Your task to perform on an android device: see creations saved in the google photos Image 0: 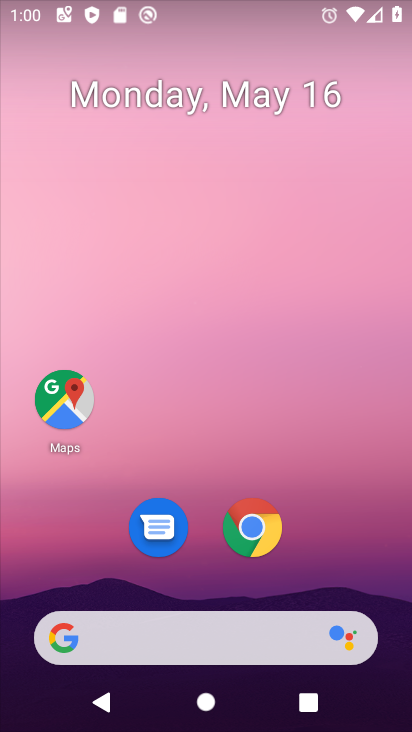
Step 0: drag from (334, 496) to (328, 235)
Your task to perform on an android device: see creations saved in the google photos Image 1: 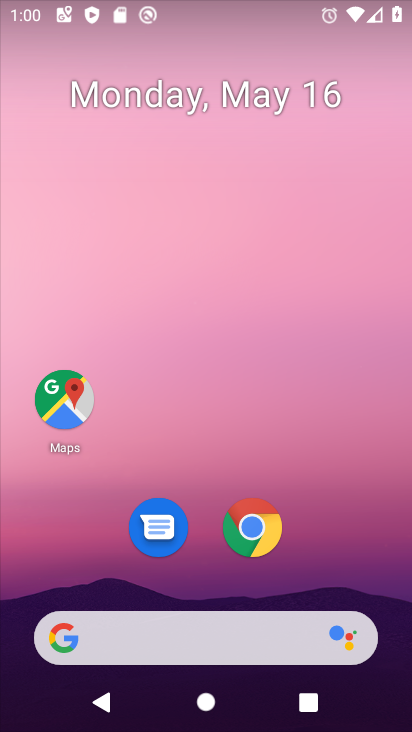
Step 1: drag from (317, 493) to (327, 67)
Your task to perform on an android device: see creations saved in the google photos Image 2: 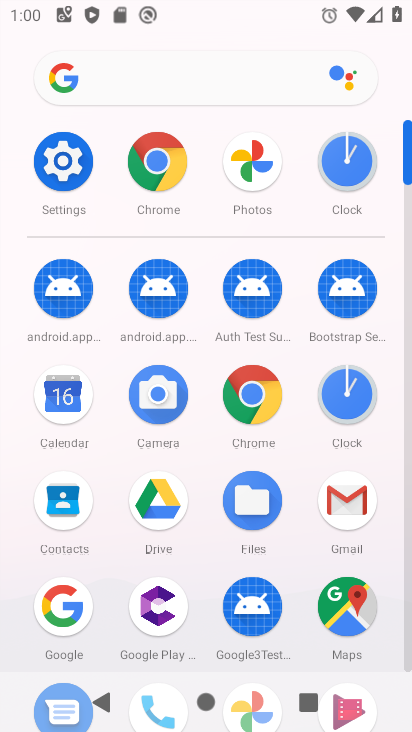
Step 2: click (405, 657)
Your task to perform on an android device: see creations saved in the google photos Image 3: 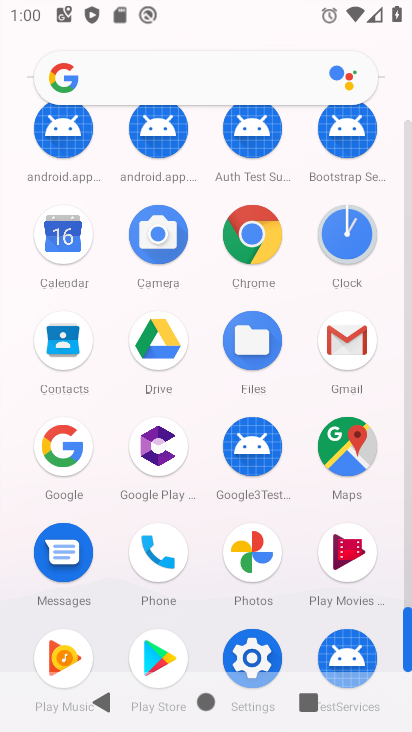
Step 3: click (248, 577)
Your task to perform on an android device: see creations saved in the google photos Image 4: 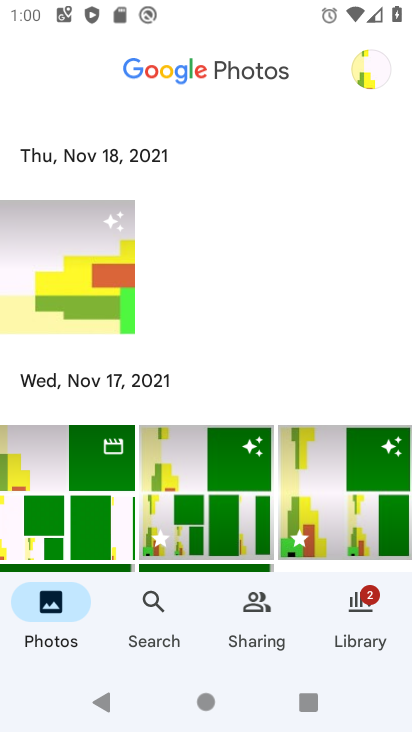
Step 4: click (351, 648)
Your task to perform on an android device: see creations saved in the google photos Image 5: 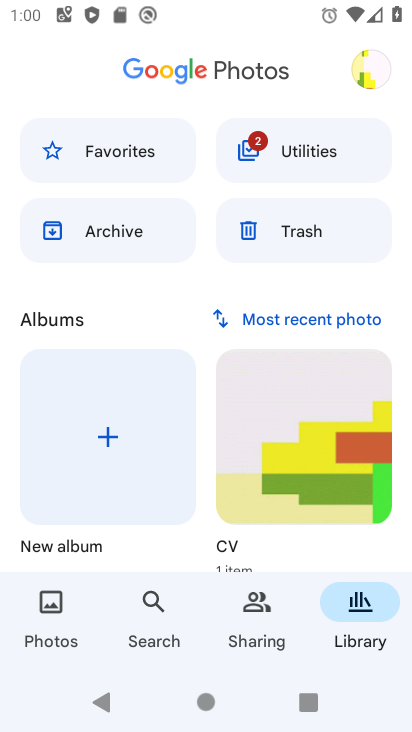
Step 5: click (77, 230)
Your task to perform on an android device: see creations saved in the google photos Image 6: 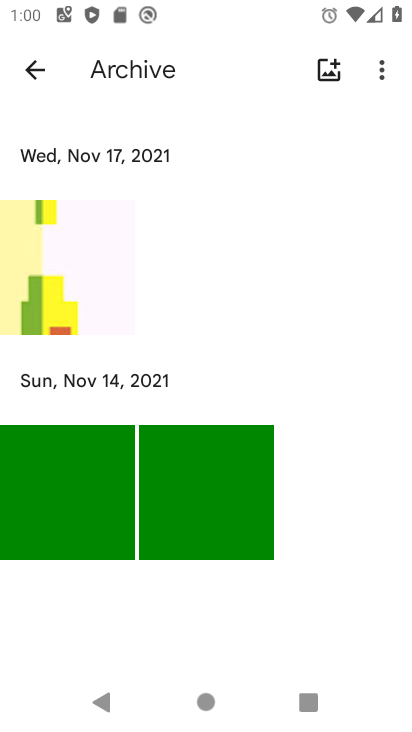
Step 6: task complete